Your task to perform on an android device: open sync settings in chrome Image 0: 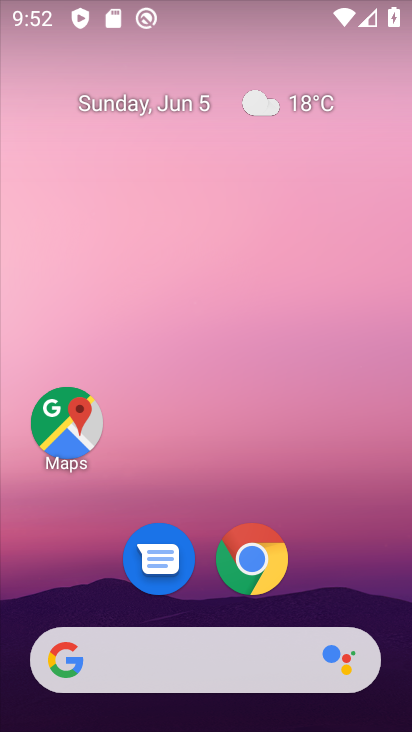
Step 0: drag from (326, 581) to (305, 71)
Your task to perform on an android device: open sync settings in chrome Image 1: 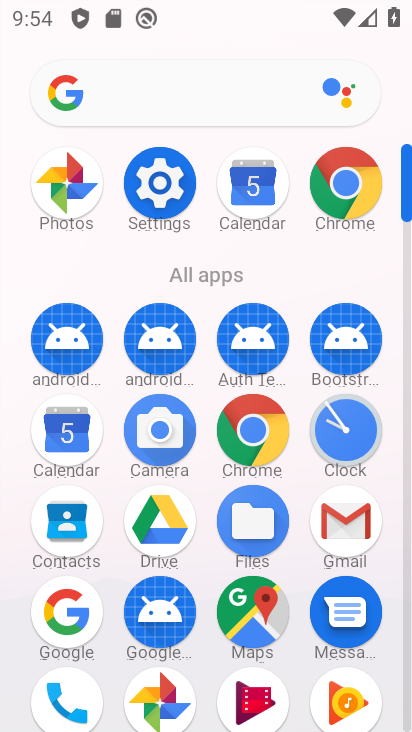
Step 1: drag from (216, 585) to (174, 367)
Your task to perform on an android device: open sync settings in chrome Image 2: 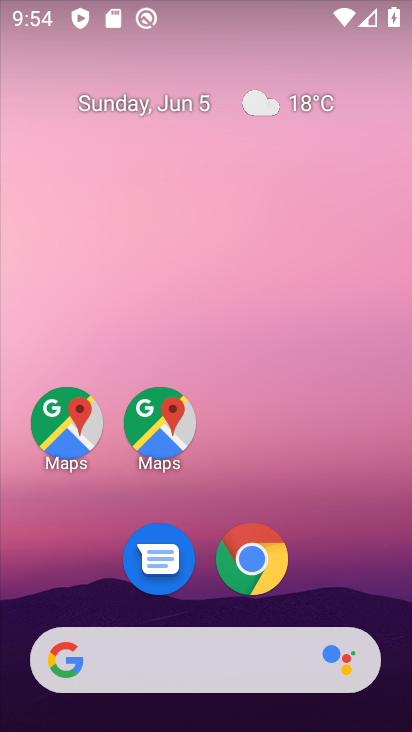
Step 2: click (251, 556)
Your task to perform on an android device: open sync settings in chrome Image 3: 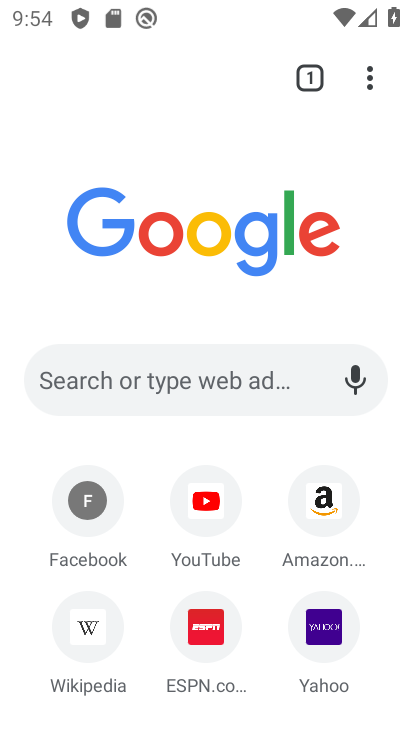
Step 3: drag from (368, 75) to (152, 609)
Your task to perform on an android device: open sync settings in chrome Image 4: 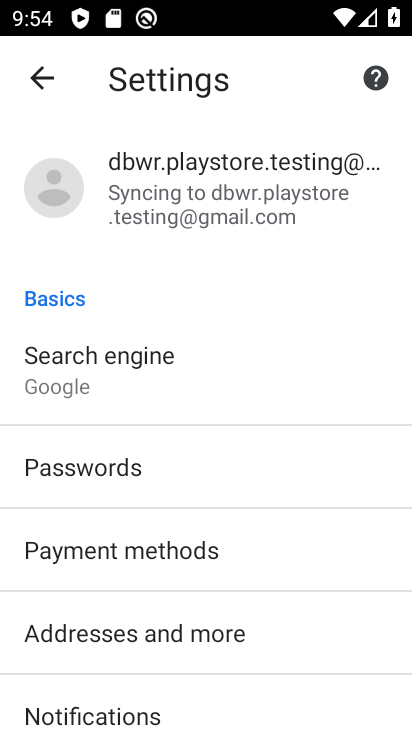
Step 4: click (55, 174)
Your task to perform on an android device: open sync settings in chrome Image 5: 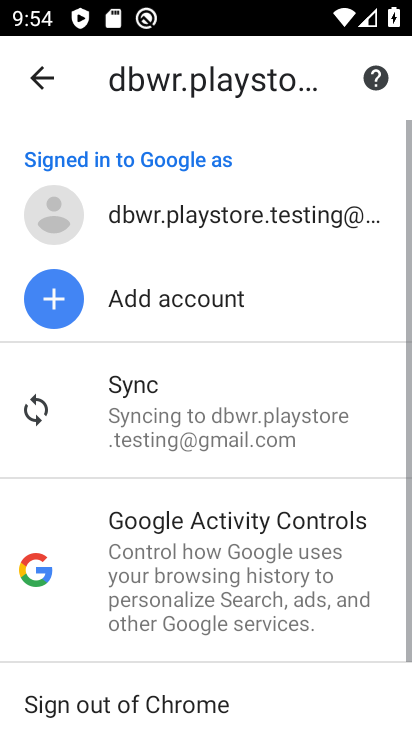
Step 5: click (160, 403)
Your task to perform on an android device: open sync settings in chrome Image 6: 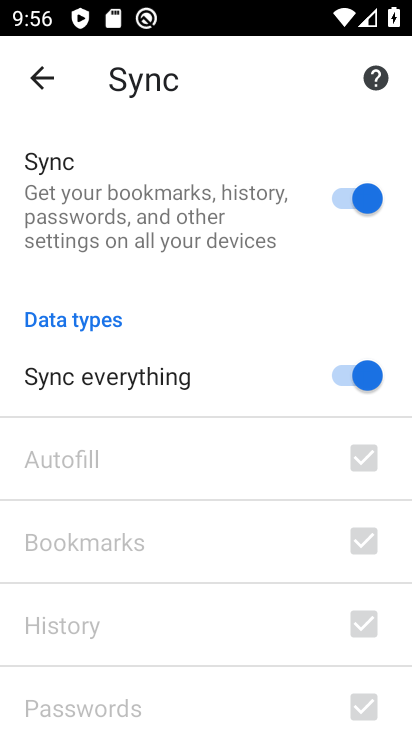
Step 6: task complete